Your task to perform on an android device: change the clock display to digital Image 0: 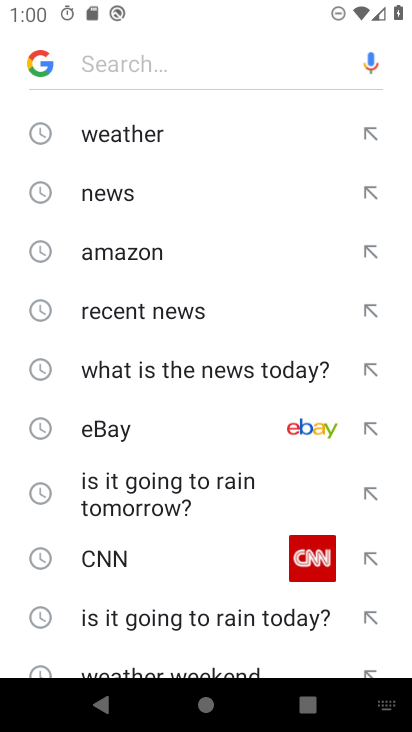
Step 0: press home button
Your task to perform on an android device: change the clock display to digital Image 1: 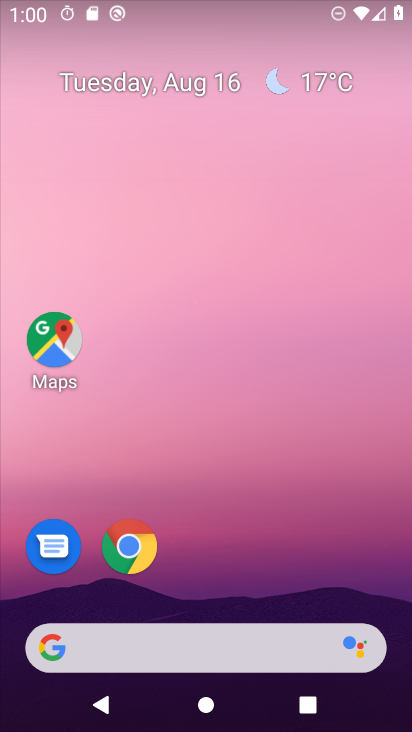
Step 1: drag from (221, 612) to (226, 27)
Your task to perform on an android device: change the clock display to digital Image 2: 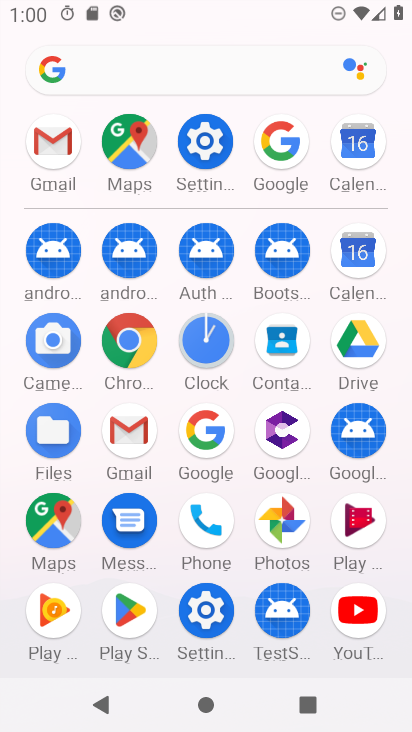
Step 2: click (207, 333)
Your task to perform on an android device: change the clock display to digital Image 3: 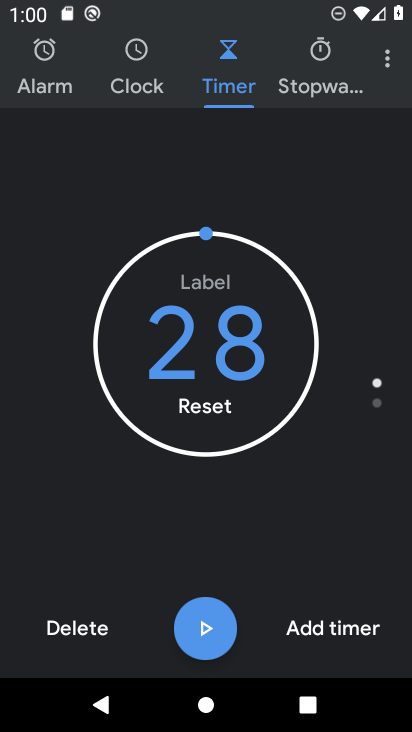
Step 3: click (389, 65)
Your task to perform on an android device: change the clock display to digital Image 4: 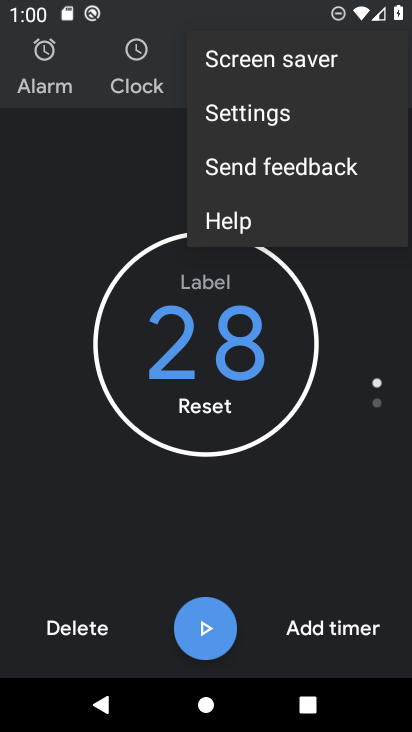
Step 4: click (231, 111)
Your task to perform on an android device: change the clock display to digital Image 5: 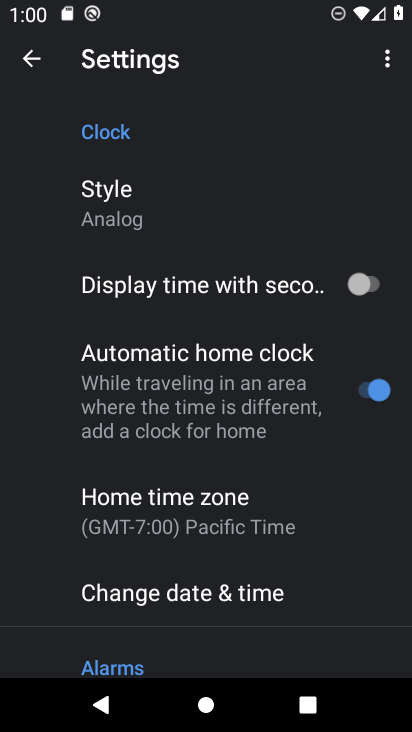
Step 5: click (130, 207)
Your task to perform on an android device: change the clock display to digital Image 6: 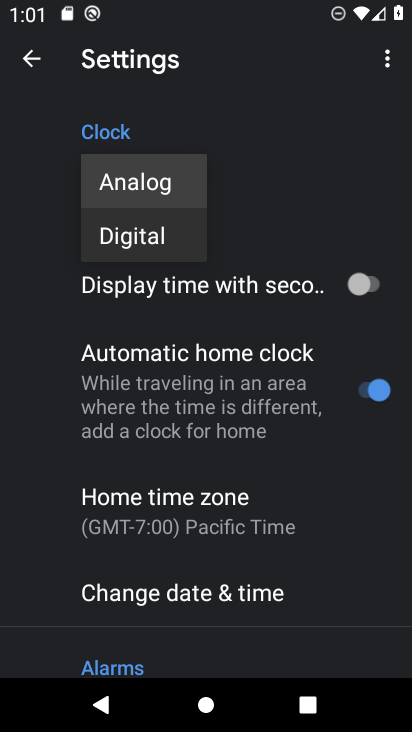
Step 6: click (130, 238)
Your task to perform on an android device: change the clock display to digital Image 7: 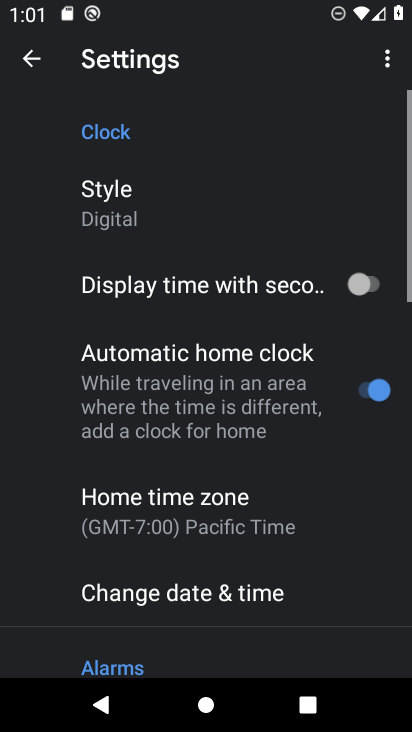
Step 7: task complete